Your task to perform on an android device: Go to location settings Image 0: 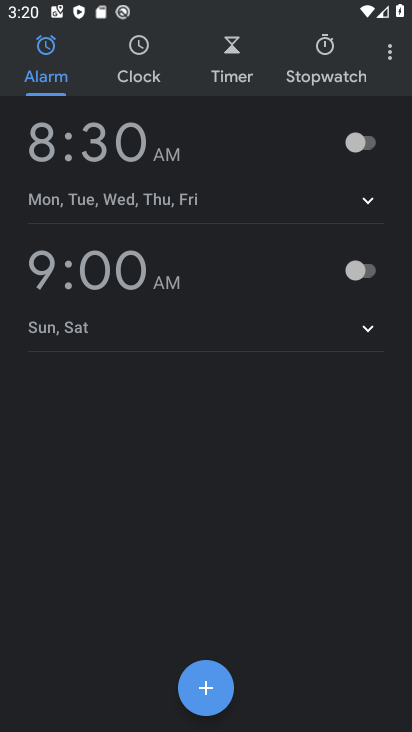
Step 0: press back button
Your task to perform on an android device: Go to location settings Image 1: 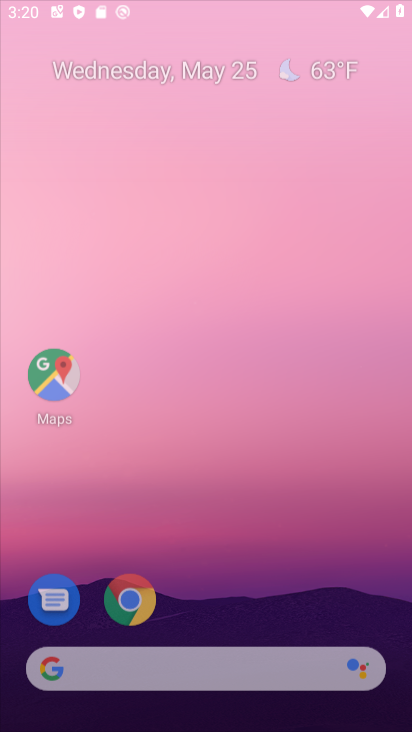
Step 1: drag from (290, 630) to (172, 115)
Your task to perform on an android device: Go to location settings Image 2: 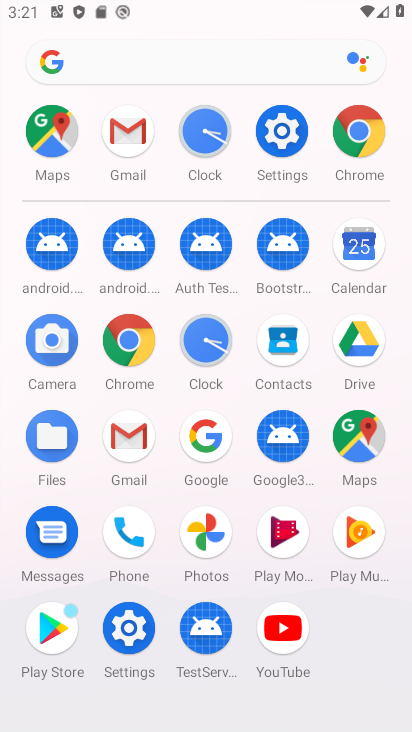
Step 2: drag from (248, 604) to (152, 127)
Your task to perform on an android device: Go to location settings Image 3: 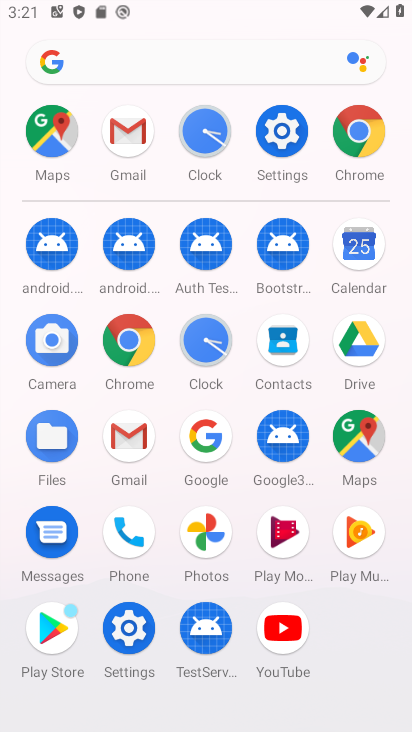
Step 3: click (291, 141)
Your task to perform on an android device: Go to location settings Image 4: 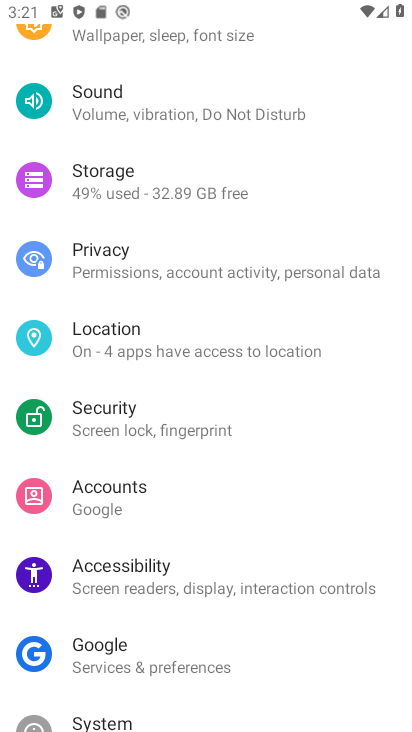
Step 4: click (115, 329)
Your task to perform on an android device: Go to location settings Image 5: 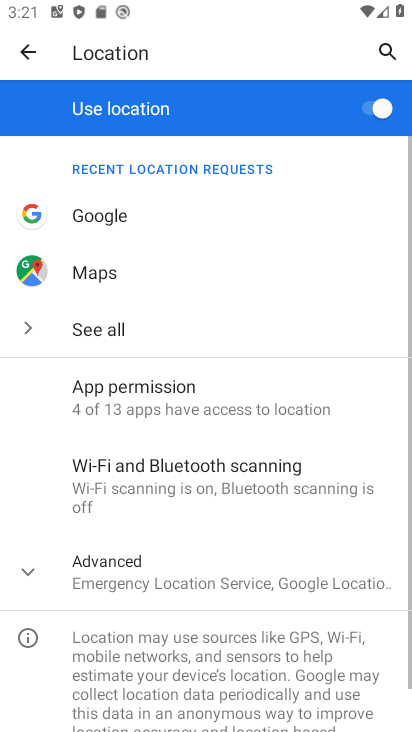
Step 5: task complete